Your task to perform on an android device: Open calendar and show me the fourth week of next month Image 0: 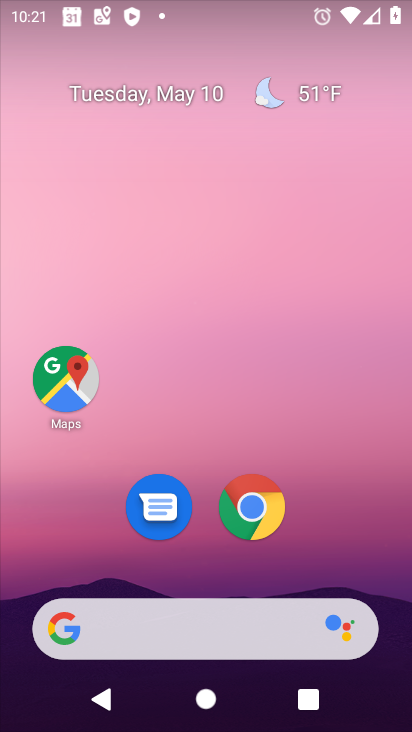
Step 0: click (122, 99)
Your task to perform on an android device: Open calendar and show me the fourth week of next month Image 1: 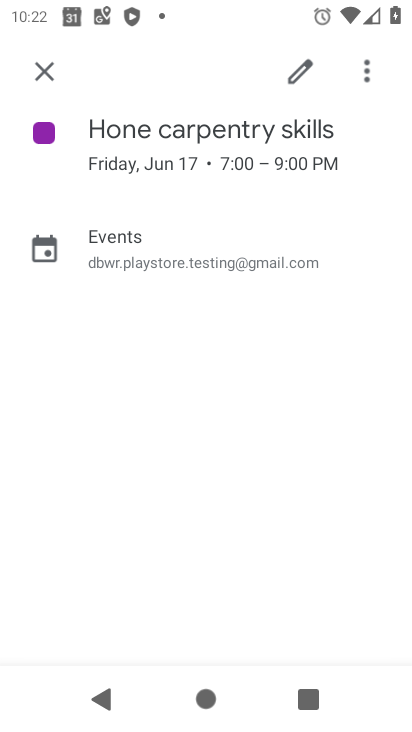
Step 1: press home button
Your task to perform on an android device: Open calendar and show me the fourth week of next month Image 2: 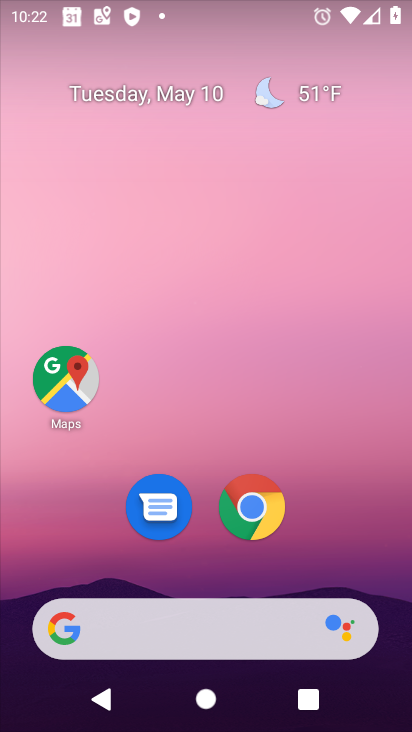
Step 2: click (181, 90)
Your task to perform on an android device: Open calendar and show me the fourth week of next month Image 3: 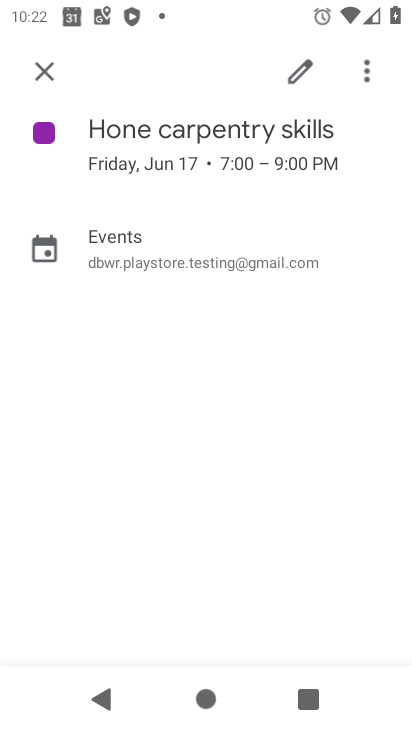
Step 3: click (64, 73)
Your task to perform on an android device: Open calendar and show me the fourth week of next month Image 4: 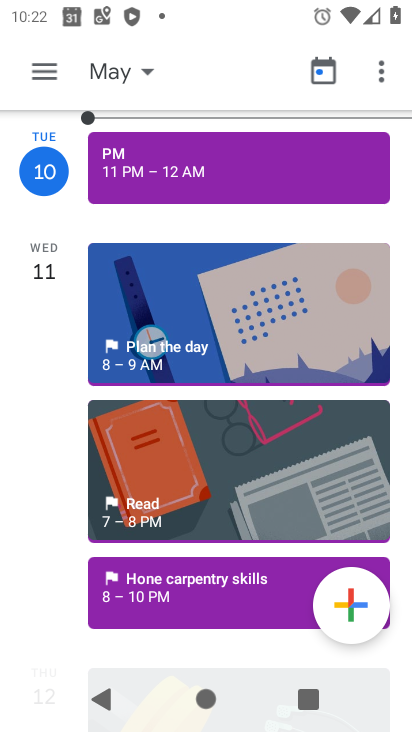
Step 4: click (132, 75)
Your task to perform on an android device: Open calendar and show me the fourth week of next month Image 5: 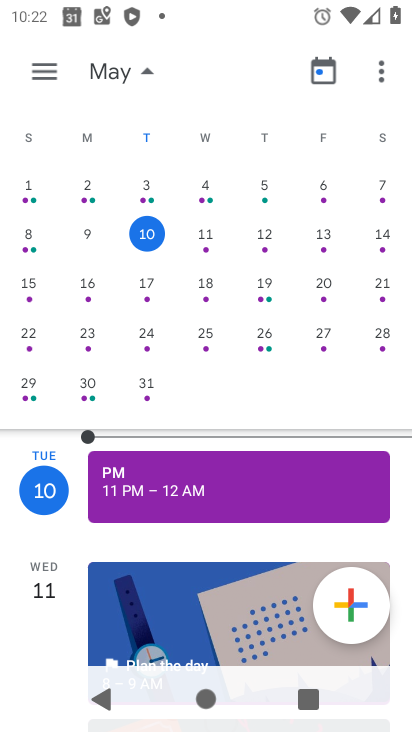
Step 5: drag from (401, 377) to (63, 340)
Your task to perform on an android device: Open calendar and show me the fourth week of next month Image 6: 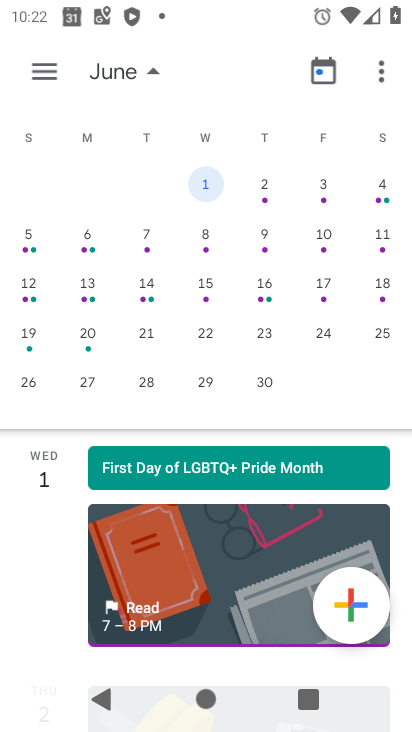
Step 6: click (385, 341)
Your task to perform on an android device: Open calendar and show me the fourth week of next month Image 7: 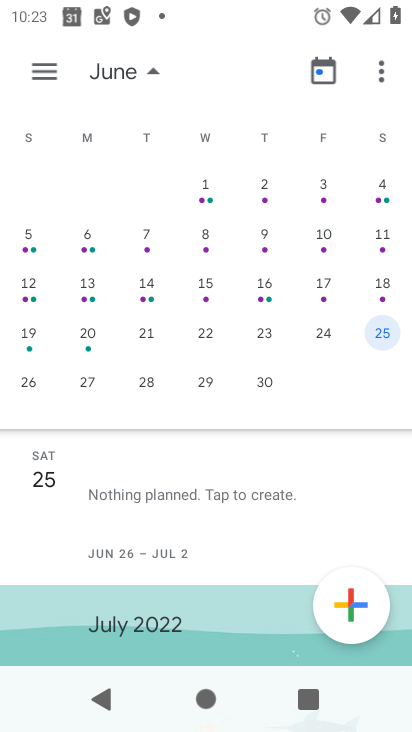
Step 7: task complete